Your task to perform on an android device: open a new tab in the chrome app Image 0: 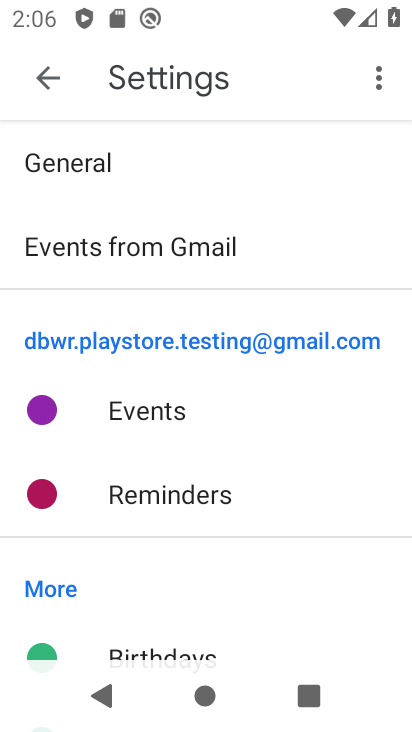
Step 0: press back button
Your task to perform on an android device: open a new tab in the chrome app Image 1: 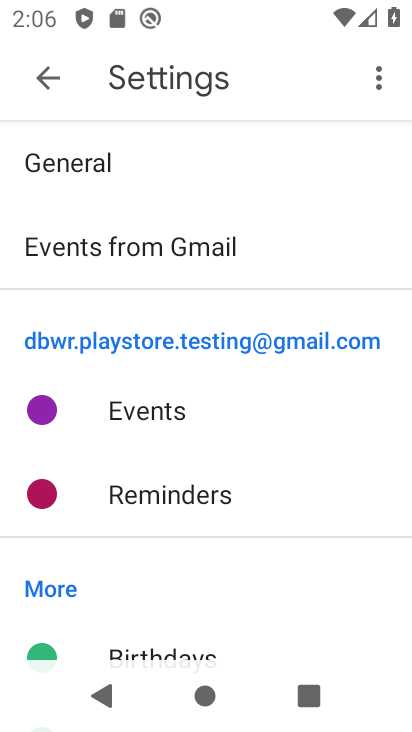
Step 1: press back button
Your task to perform on an android device: open a new tab in the chrome app Image 2: 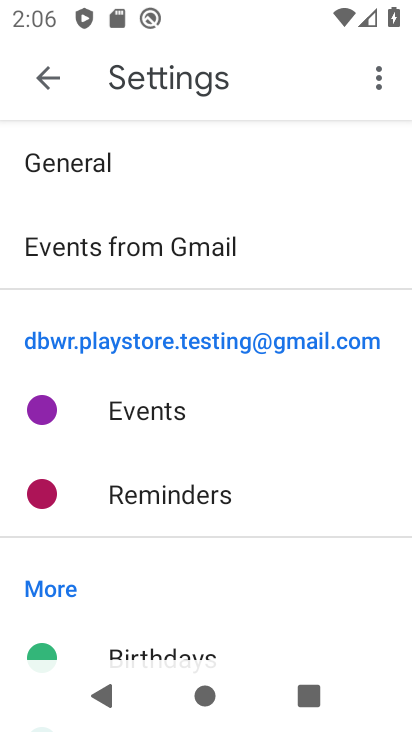
Step 2: press back button
Your task to perform on an android device: open a new tab in the chrome app Image 3: 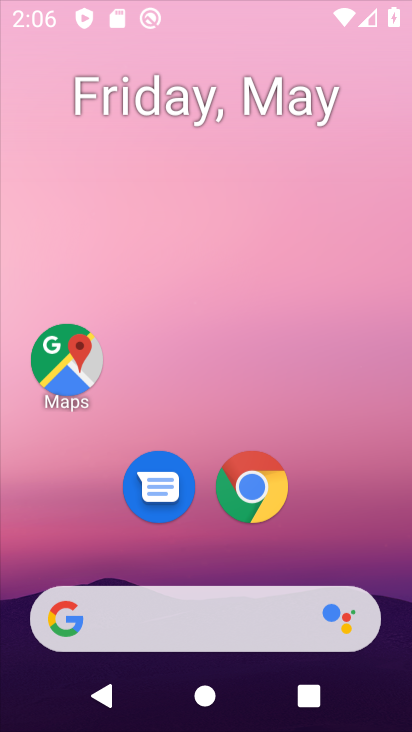
Step 3: press back button
Your task to perform on an android device: open a new tab in the chrome app Image 4: 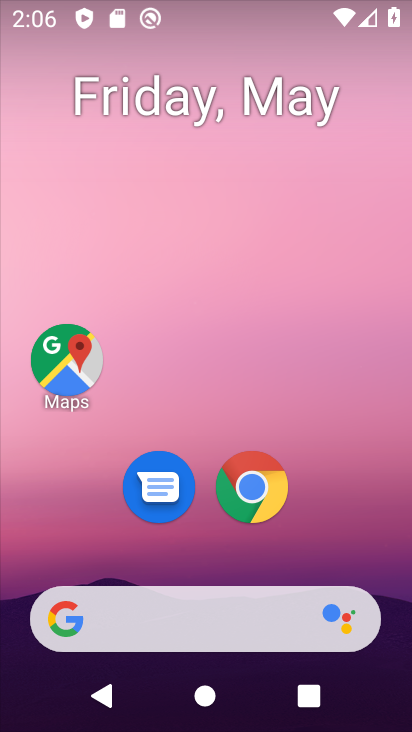
Step 4: click (248, 485)
Your task to perform on an android device: open a new tab in the chrome app Image 5: 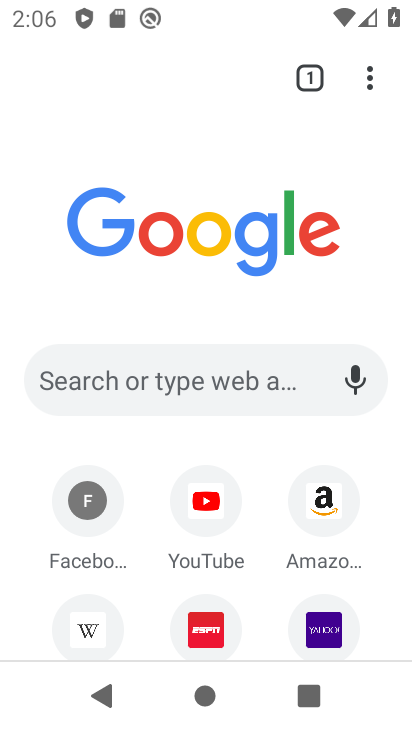
Step 5: task complete